Your task to perform on an android device: open a bookmark in the chrome app Image 0: 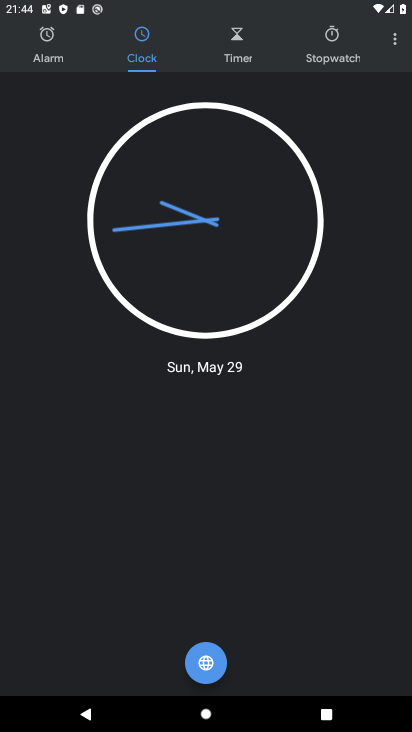
Step 0: press home button
Your task to perform on an android device: open a bookmark in the chrome app Image 1: 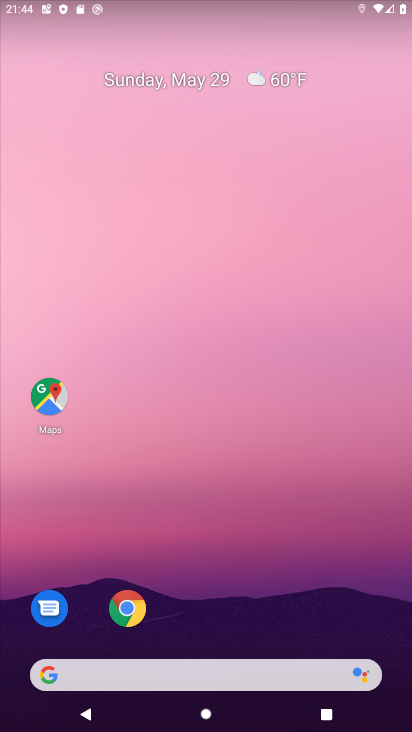
Step 1: drag from (392, 621) to (404, 217)
Your task to perform on an android device: open a bookmark in the chrome app Image 2: 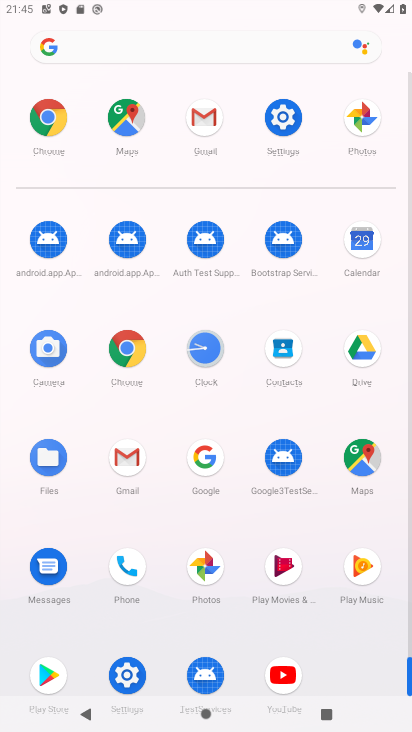
Step 2: click (137, 352)
Your task to perform on an android device: open a bookmark in the chrome app Image 3: 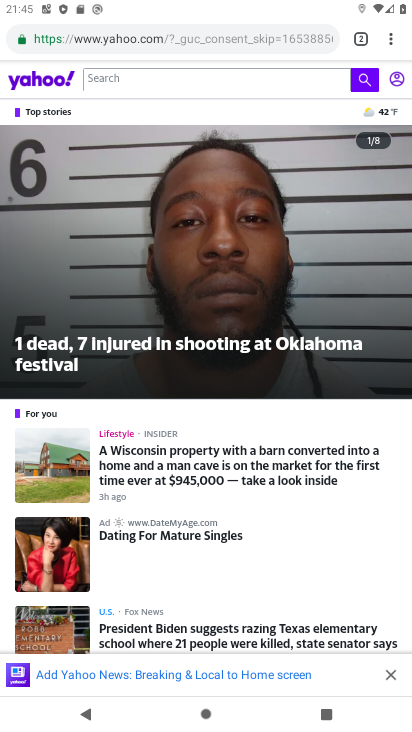
Step 3: click (392, 44)
Your task to perform on an android device: open a bookmark in the chrome app Image 4: 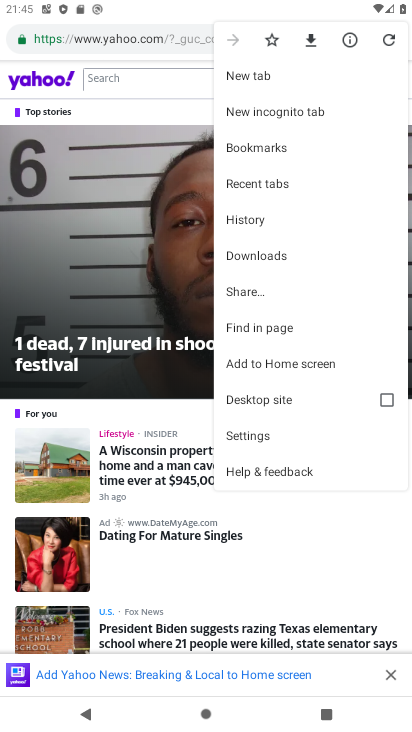
Step 4: click (304, 145)
Your task to perform on an android device: open a bookmark in the chrome app Image 5: 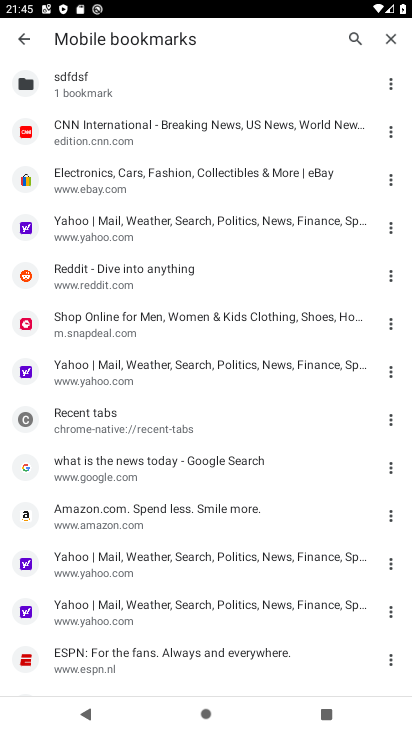
Step 5: click (187, 181)
Your task to perform on an android device: open a bookmark in the chrome app Image 6: 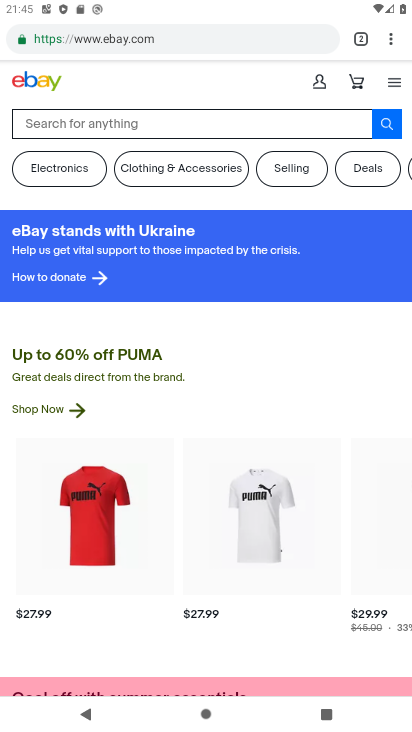
Step 6: task complete